Your task to perform on an android device: Clear the shopping cart on costco.com. Search for "panasonic triple a" on costco.com, select the first entry, and add it to the cart. Image 0: 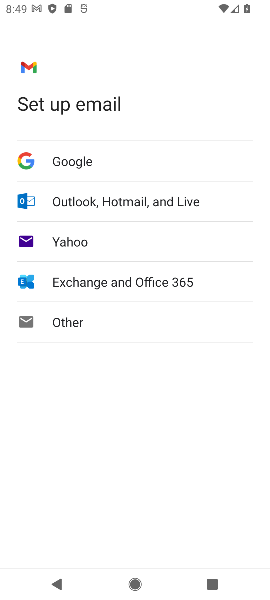
Step 0: press home button
Your task to perform on an android device: Clear the shopping cart on costco.com. Search for "panasonic triple a" on costco.com, select the first entry, and add it to the cart. Image 1: 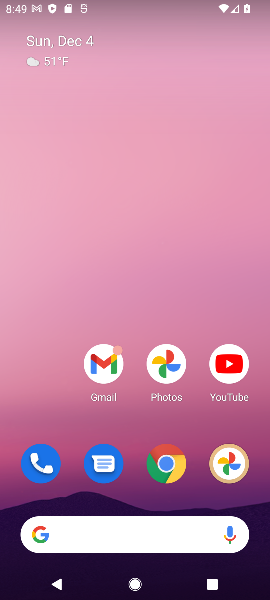
Step 1: click (126, 540)
Your task to perform on an android device: Clear the shopping cart on costco.com. Search for "panasonic triple a" on costco.com, select the first entry, and add it to the cart. Image 2: 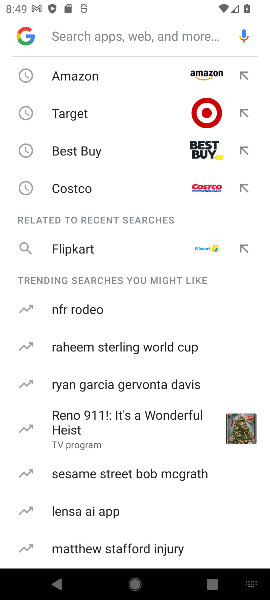
Step 2: type "costco.com"
Your task to perform on an android device: Clear the shopping cart on costco.com. Search for "panasonic triple a" on costco.com, select the first entry, and add it to the cart. Image 3: 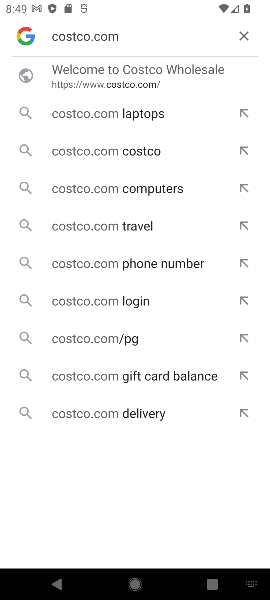
Step 3: click (92, 67)
Your task to perform on an android device: Clear the shopping cart on costco.com. Search for "panasonic triple a" on costco.com, select the first entry, and add it to the cart. Image 4: 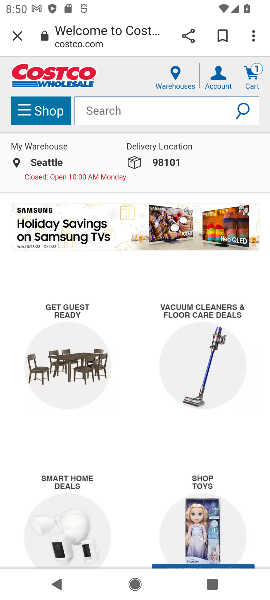
Step 4: task complete